Your task to perform on an android device: delete browsing data in the chrome app Image 0: 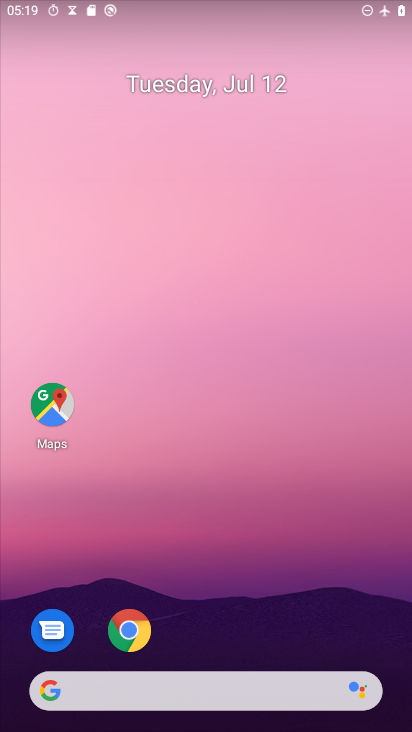
Step 0: drag from (260, 637) to (247, 39)
Your task to perform on an android device: delete browsing data in the chrome app Image 1: 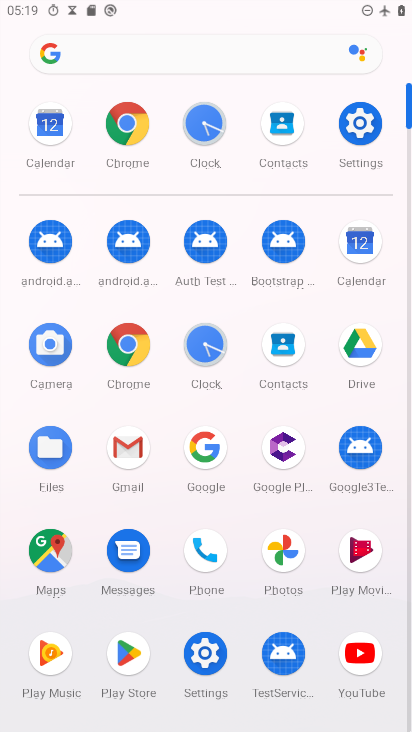
Step 1: click (132, 356)
Your task to perform on an android device: delete browsing data in the chrome app Image 2: 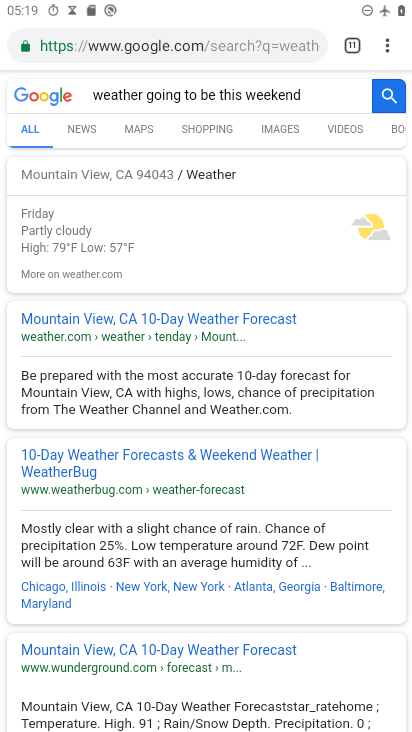
Step 2: drag from (381, 36) to (270, 520)
Your task to perform on an android device: delete browsing data in the chrome app Image 3: 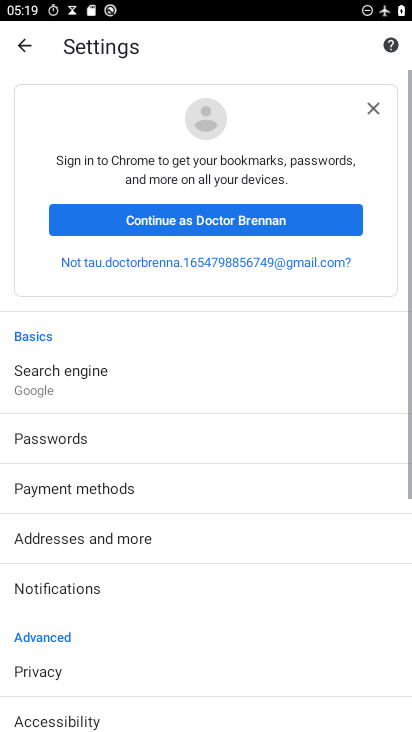
Step 3: drag from (177, 615) to (186, 108)
Your task to perform on an android device: delete browsing data in the chrome app Image 4: 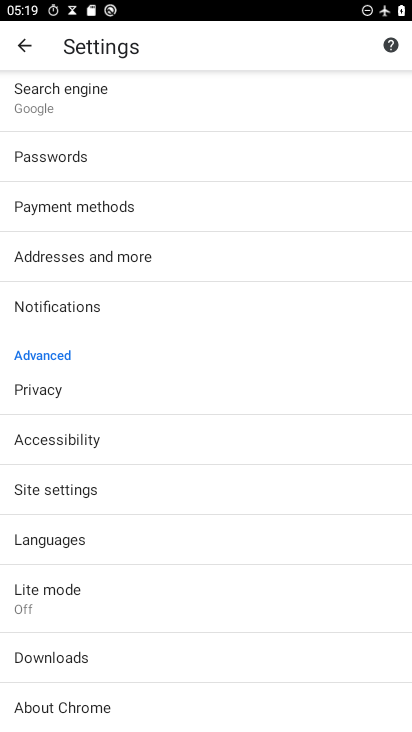
Step 4: click (84, 404)
Your task to perform on an android device: delete browsing data in the chrome app Image 5: 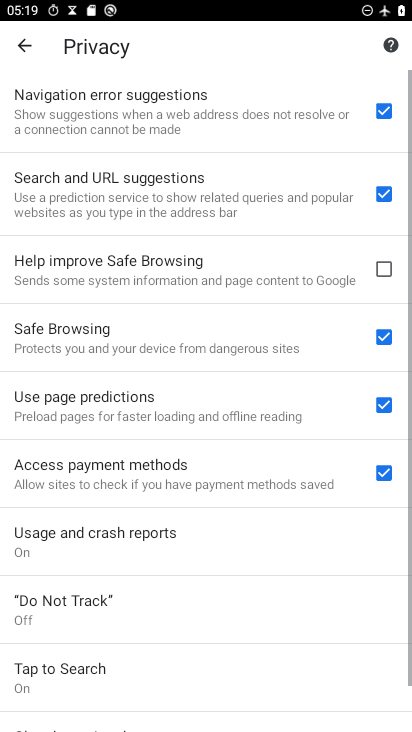
Step 5: drag from (253, 631) to (319, 147)
Your task to perform on an android device: delete browsing data in the chrome app Image 6: 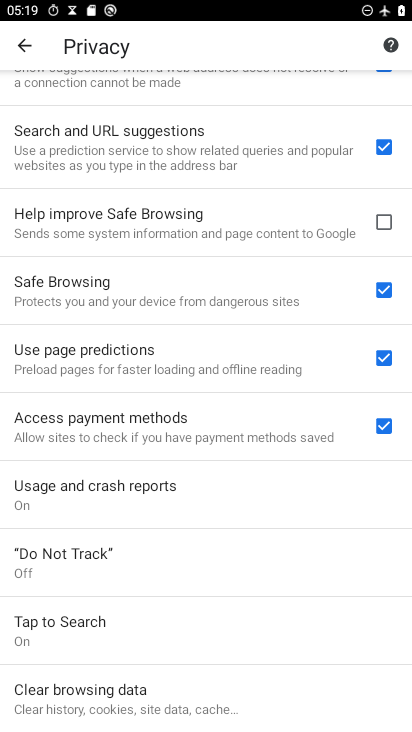
Step 6: click (176, 730)
Your task to perform on an android device: delete browsing data in the chrome app Image 7: 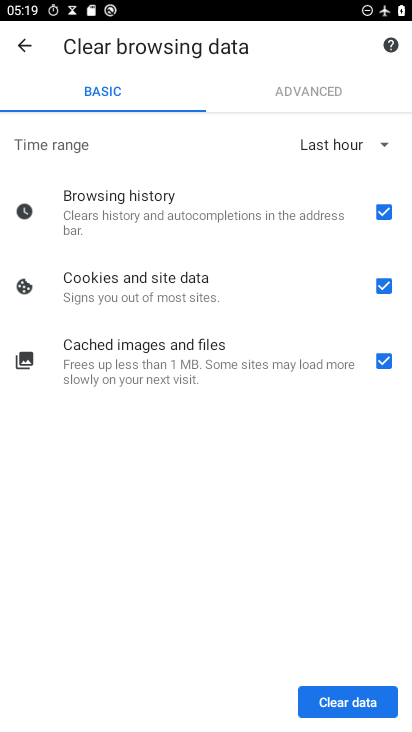
Step 7: click (353, 716)
Your task to perform on an android device: delete browsing data in the chrome app Image 8: 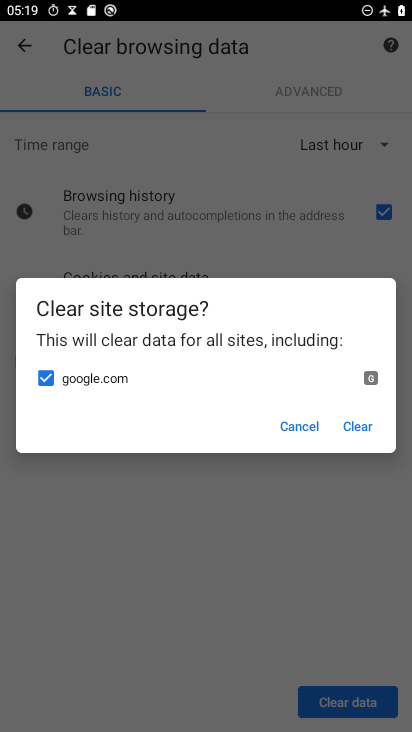
Step 8: click (367, 423)
Your task to perform on an android device: delete browsing data in the chrome app Image 9: 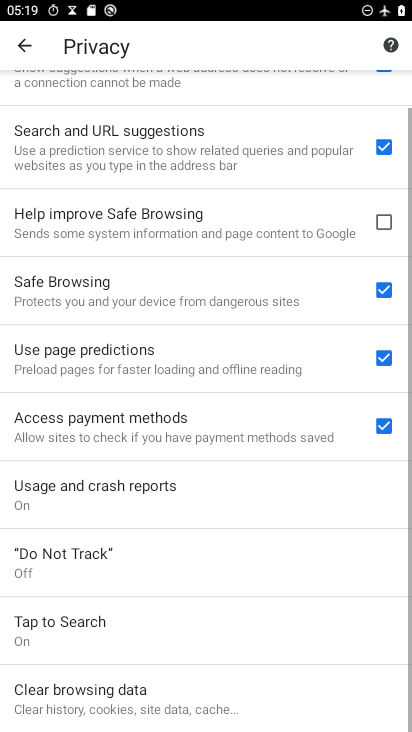
Step 9: task complete